Your task to perform on an android device: turn off data saver in the chrome app Image 0: 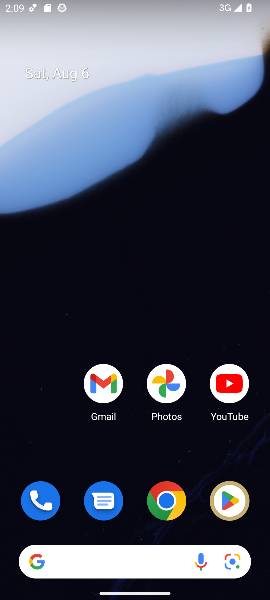
Step 0: press home button
Your task to perform on an android device: turn off data saver in the chrome app Image 1: 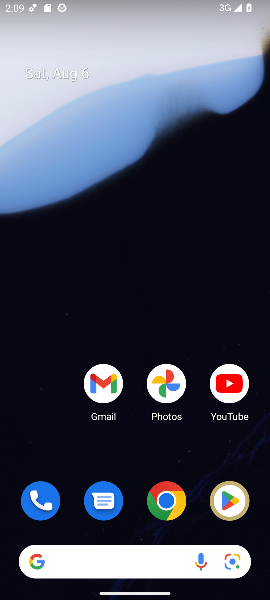
Step 1: click (171, 504)
Your task to perform on an android device: turn off data saver in the chrome app Image 2: 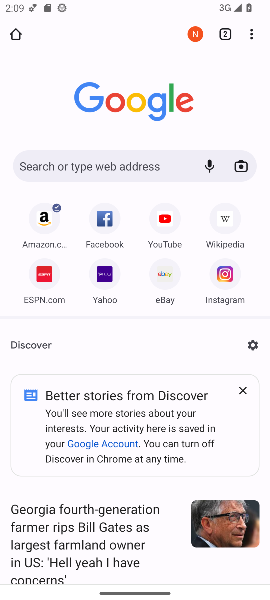
Step 2: task complete